Your task to perform on an android device: Search for pizza restaurants on Maps Image 0: 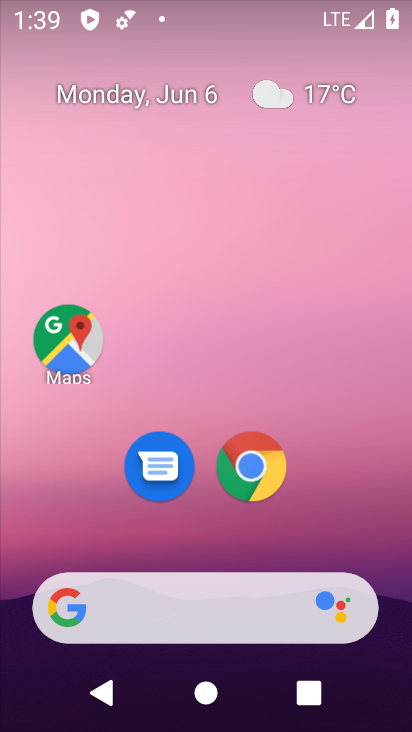
Step 0: press home button
Your task to perform on an android device: Search for pizza restaurants on Maps Image 1: 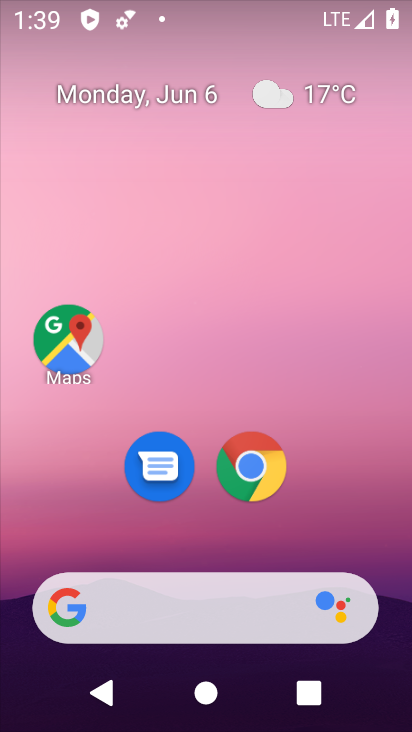
Step 1: click (71, 350)
Your task to perform on an android device: Search for pizza restaurants on Maps Image 2: 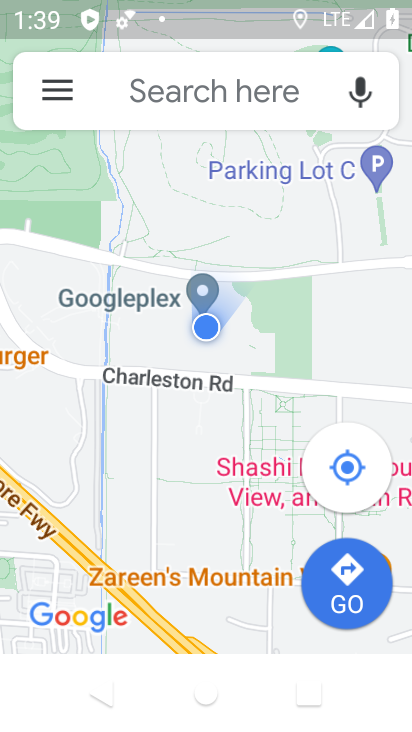
Step 2: click (180, 90)
Your task to perform on an android device: Search for pizza restaurants on Maps Image 3: 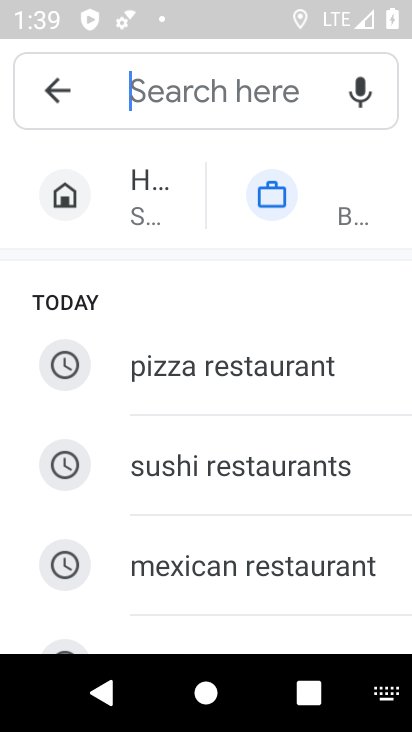
Step 3: click (239, 383)
Your task to perform on an android device: Search for pizza restaurants on Maps Image 4: 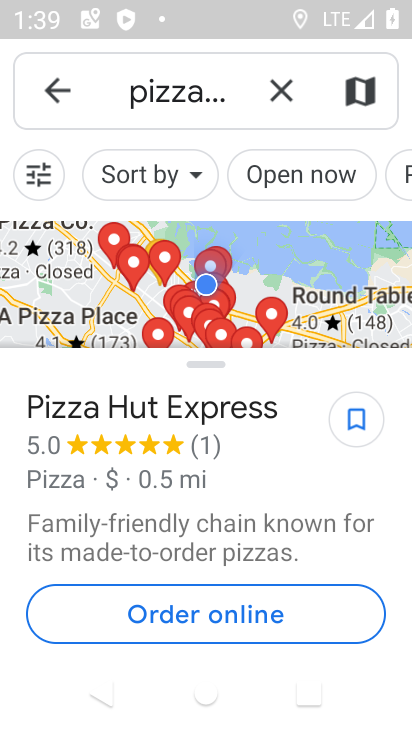
Step 4: task complete